Your task to perform on an android device: How much does a 2 bedroom apartment rent for in Austin? Image 0: 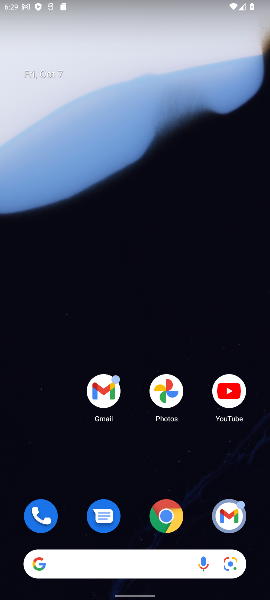
Step 0: click (134, 561)
Your task to perform on an android device: How much does a 2 bedroom apartment rent for in Austin? Image 1: 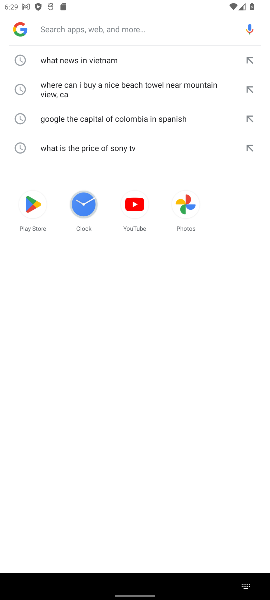
Step 1: type "How much does a 2 bedroom apartment rent for in Austin?"
Your task to perform on an android device: How much does a 2 bedroom apartment rent for in Austin? Image 2: 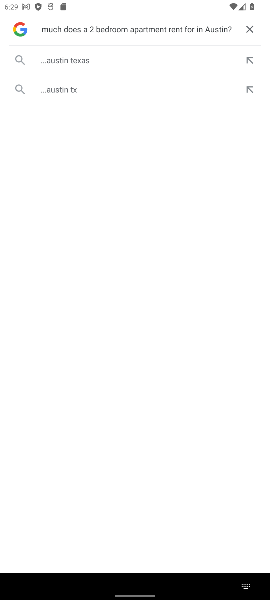
Step 2: click (76, 63)
Your task to perform on an android device: How much does a 2 bedroom apartment rent for in Austin? Image 3: 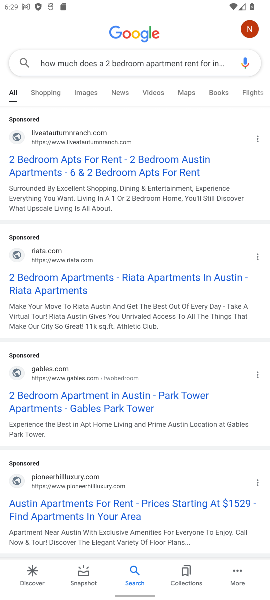
Step 3: click (132, 181)
Your task to perform on an android device: How much does a 2 bedroom apartment rent for in Austin? Image 4: 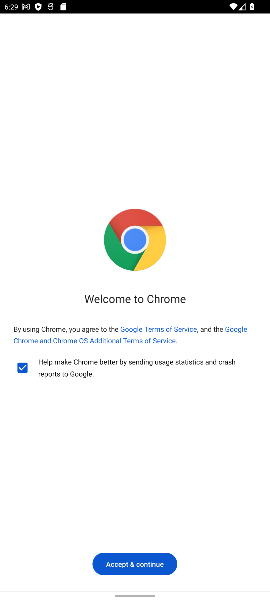
Step 4: task complete